Your task to perform on an android device: toggle sleep mode Image 0: 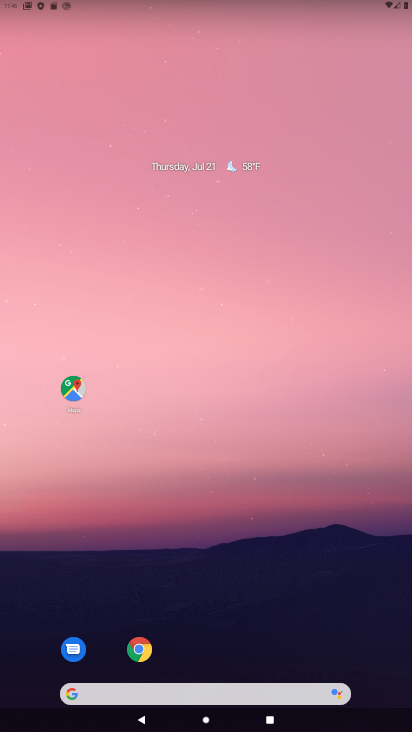
Step 0: drag from (186, 660) to (170, 118)
Your task to perform on an android device: toggle sleep mode Image 1: 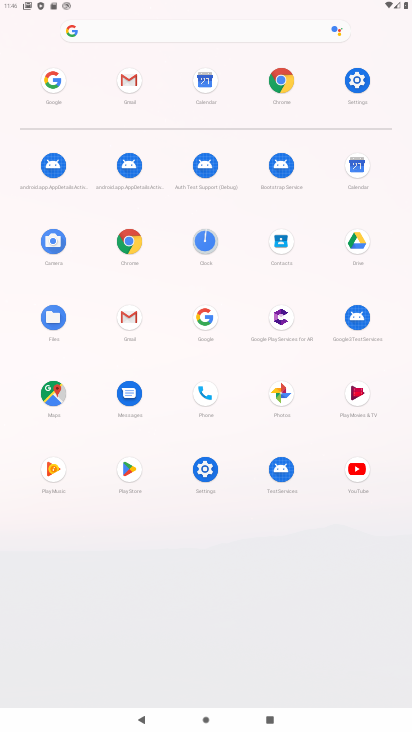
Step 1: click (356, 78)
Your task to perform on an android device: toggle sleep mode Image 2: 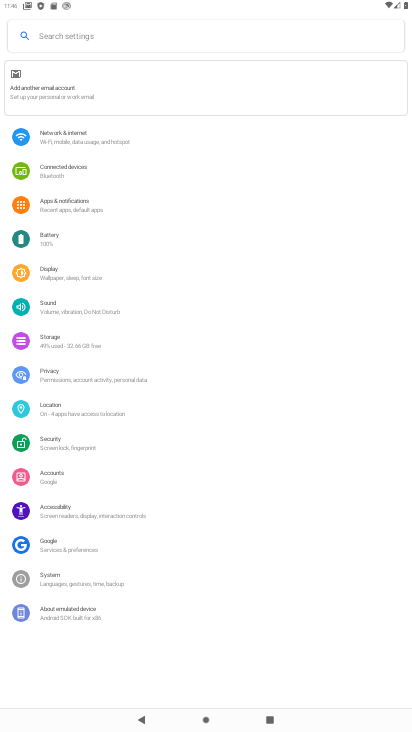
Step 2: click (105, 269)
Your task to perform on an android device: toggle sleep mode Image 3: 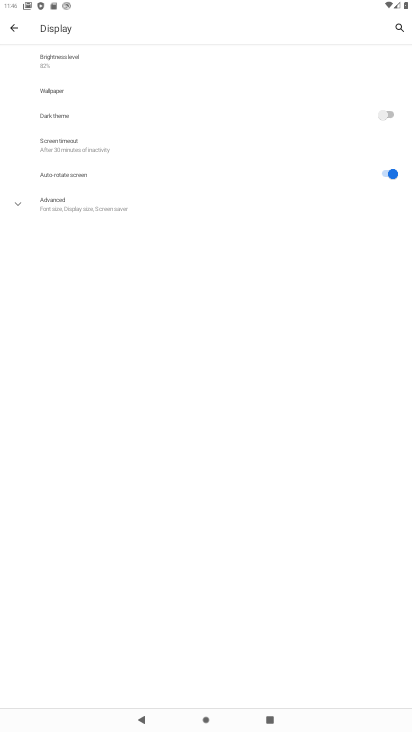
Step 3: click (73, 139)
Your task to perform on an android device: toggle sleep mode Image 4: 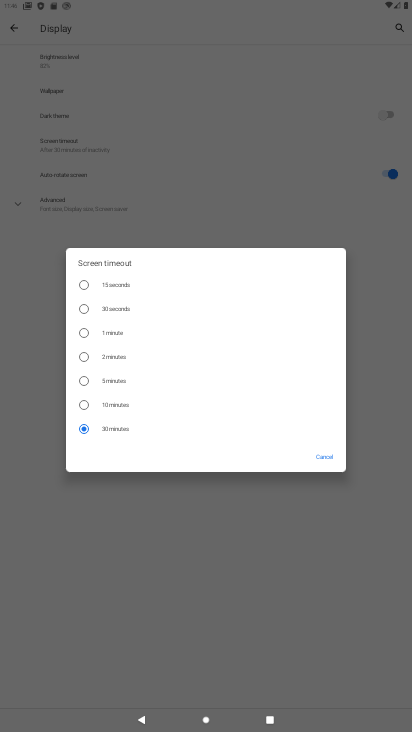
Step 4: click (84, 356)
Your task to perform on an android device: toggle sleep mode Image 5: 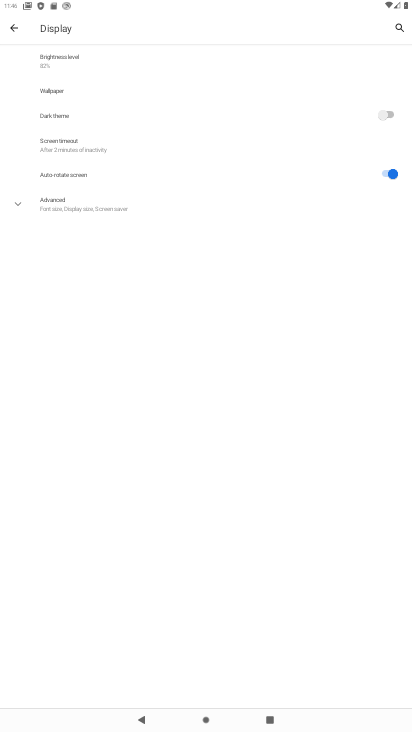
Step 5: task complete